Your task to perform on an android device: Show me the alarms in the clock app Image 0: 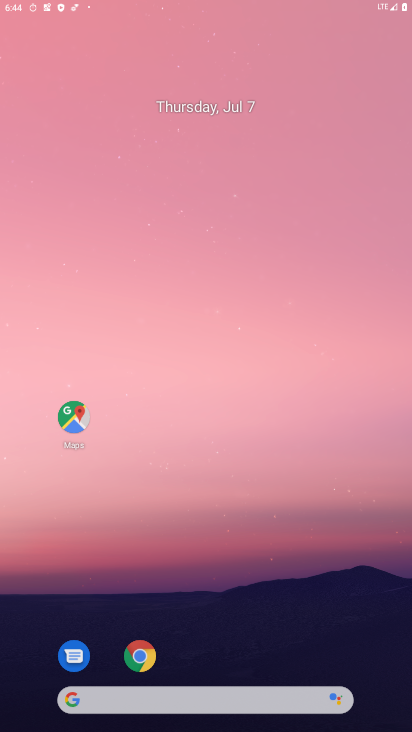
Step 0: drag from (368, 681) to (274, 74)
Your task to perform on an android device: Show me the alarms in the clock app Image 1: 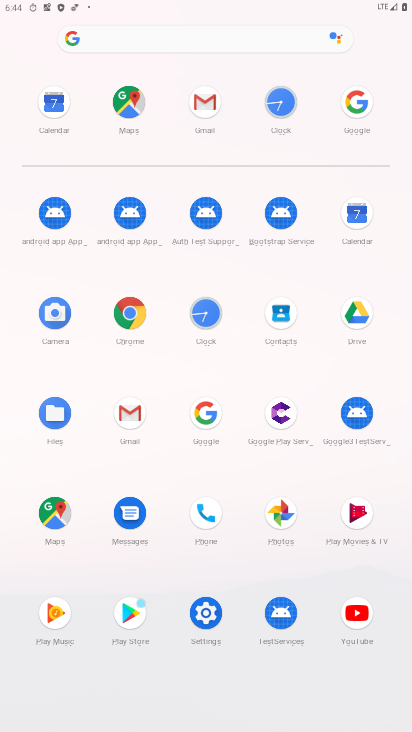
Step 1: click (207, 301)
Your task to perform on an android device: Show me the alarms in the clock app Image 2: 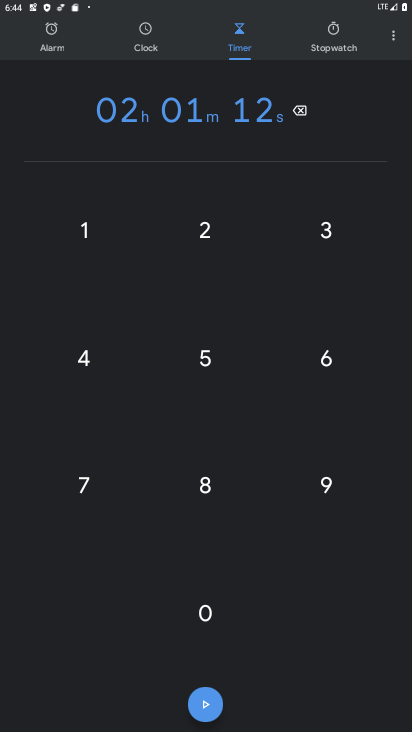
Step 2: click (59, 42)
Your task to perform on an android device: Show me the alarms in the clock app Image 3: 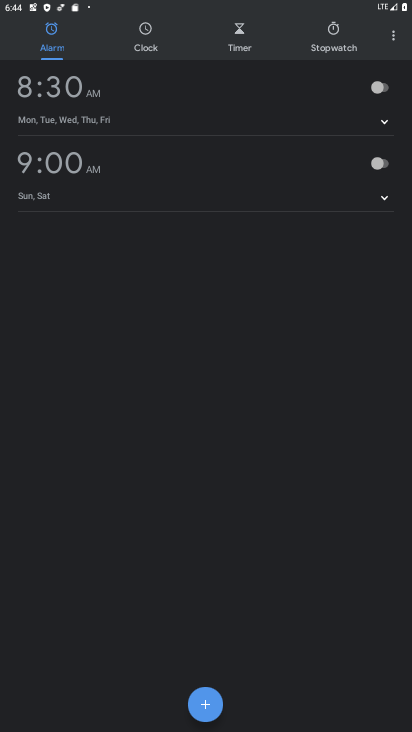
Step 3: task complete